Your task to perform on an android device: Open Youtube and go to the subscriptions tab Image 0: 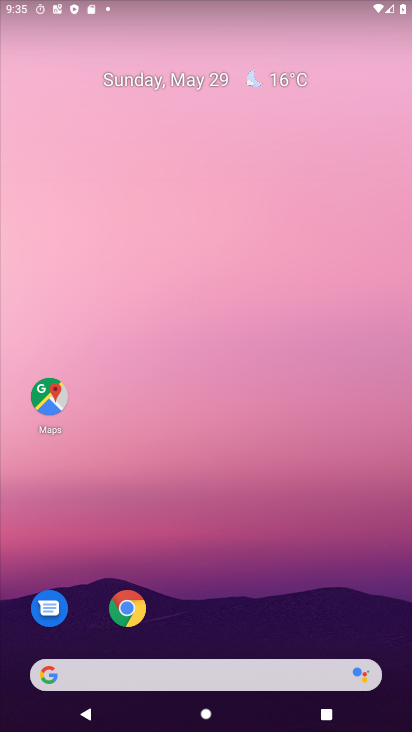
Step 0: drag from (233, 606) to (301, 0)
Your task to perform on an android device: Open Youtube and go to the subscriptions tab Image 1: 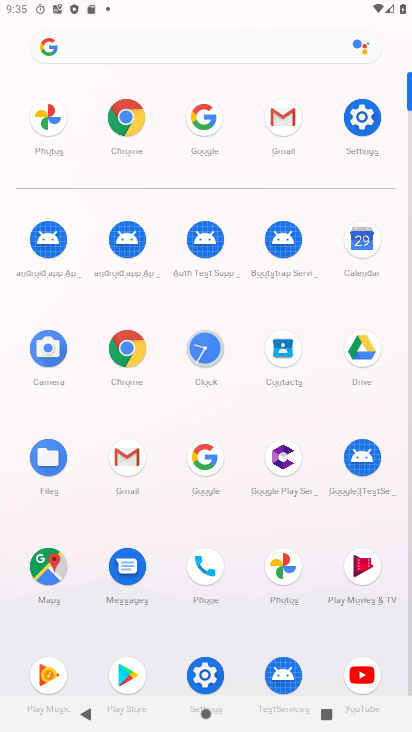
Step 1: click (364, 687)
Your task to perform on an android device: Open Youtube and go to the subscriptions tab Image 2: 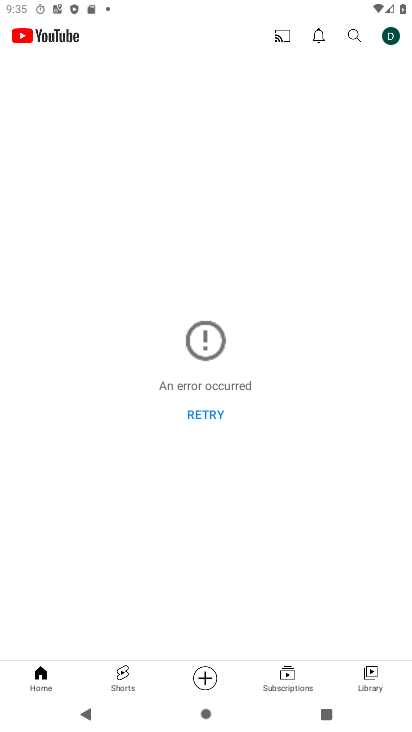
Step 2: click (286, 682)
Your task to perform on an android device: Open Youtube and go to the subscriptions tab Image 3: 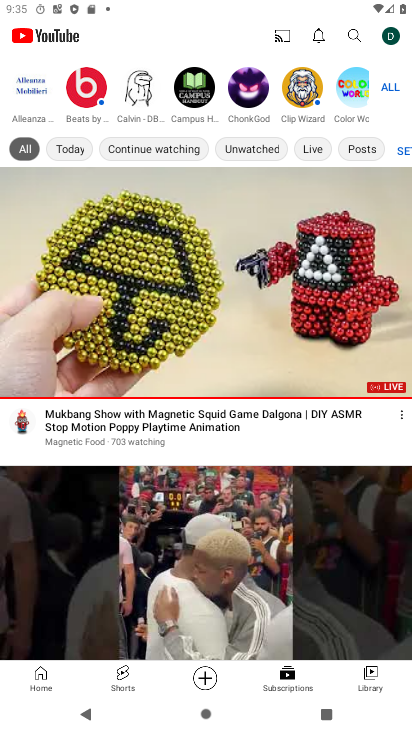
Step 3: task complete